Your task to perform on an android device: refresh tabs in the chrome app Image 0: 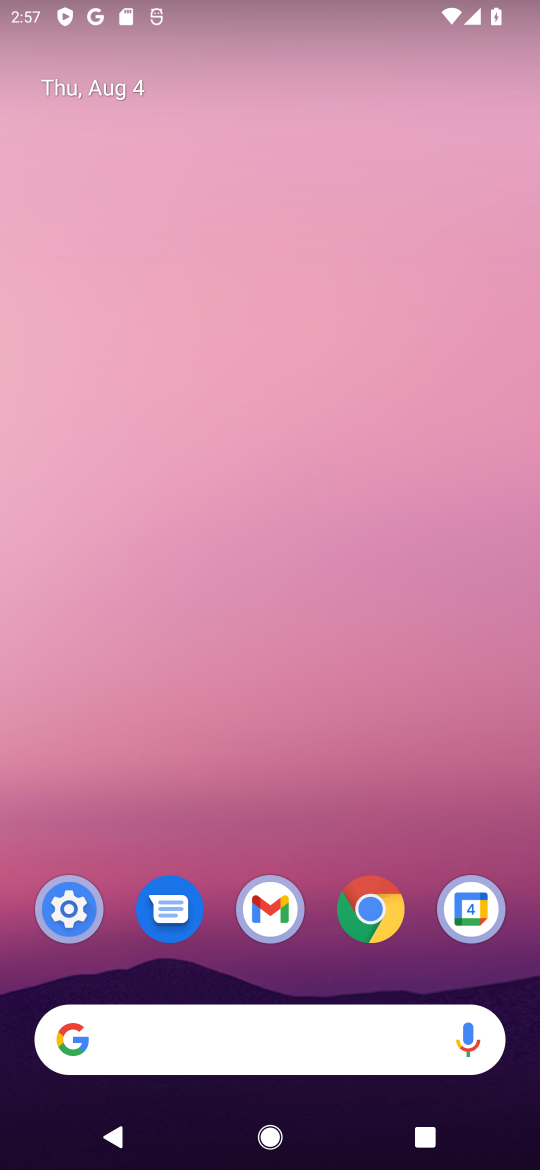
Step 0: click (361, 906)
Your task to perform on an android device: refresh tabs in the chrome app Image 1: 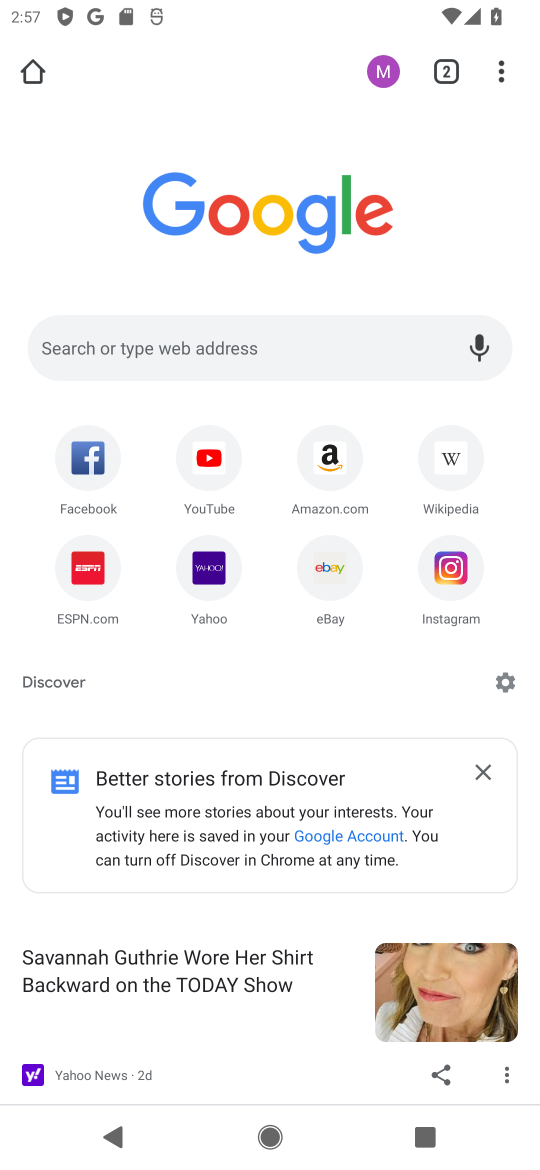
Step 1: click (499, 68)
Your task to perform on an android device: refresh tabs in the chrome app Image 2: 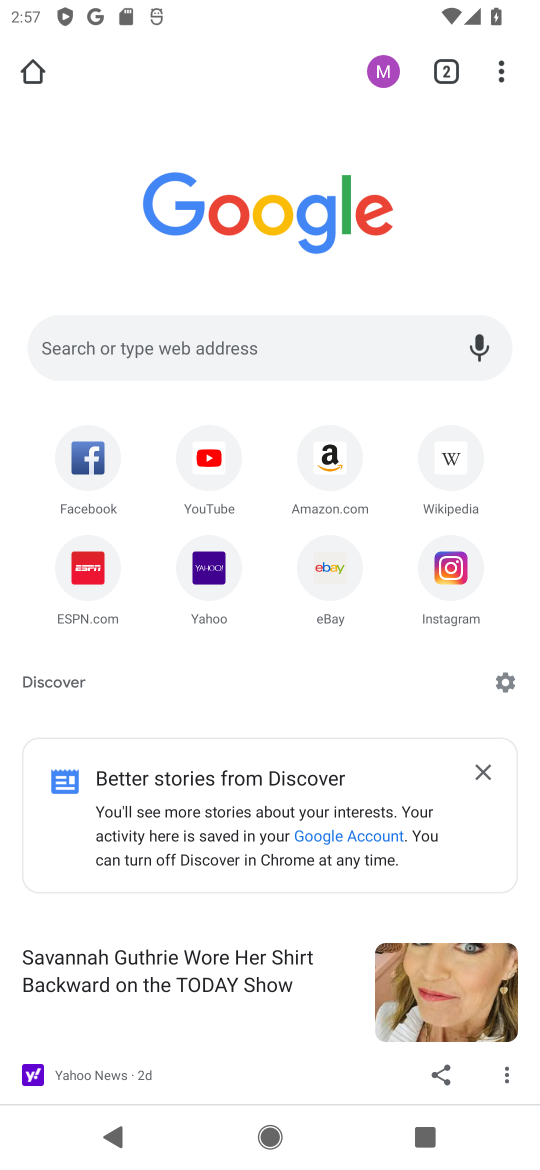
Step 2: click (500, 81)
Your task to perform on an android device: refresh tabs in the chrome app Image 3: 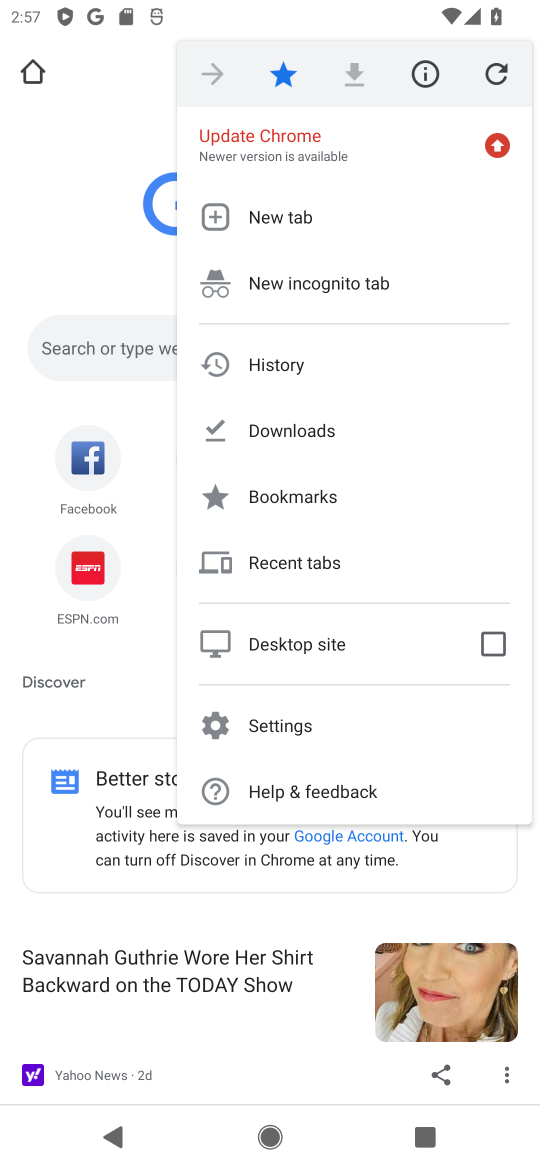
Step 3: click (485, 63)
Your task to perform on an android device: refresh tabs in the chrome app Image 4: 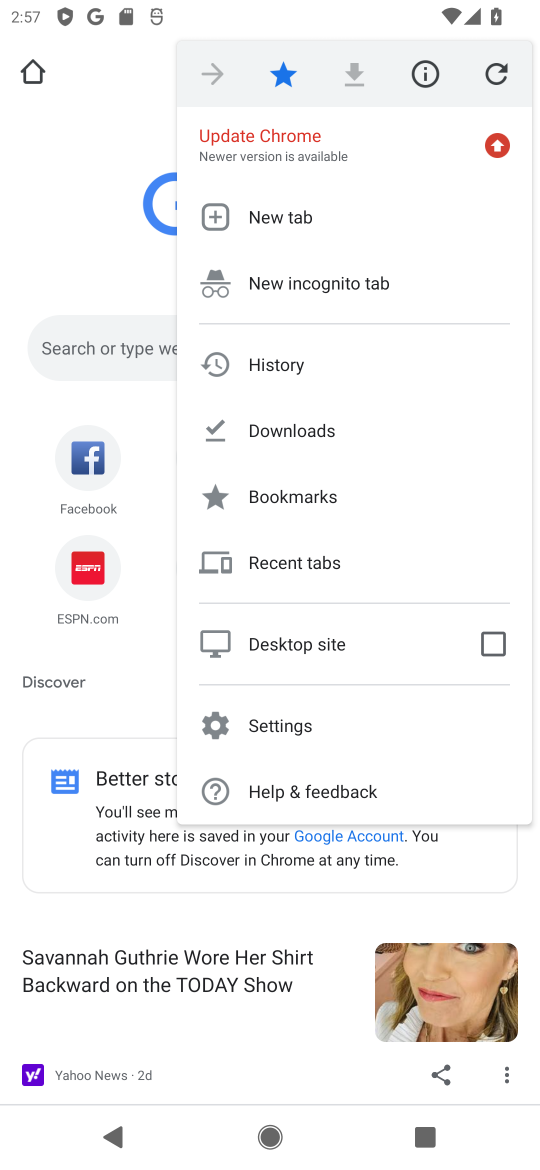
Step 4: click (492, 78)
Your task to perform on an android device: refresh tabs in the chrome app Image 5: 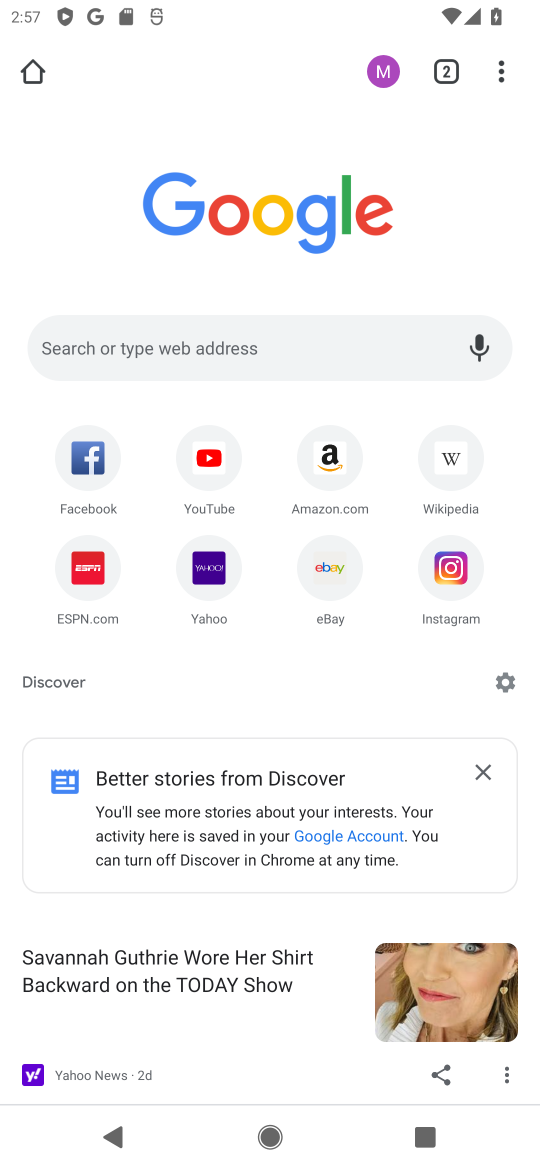
Step 5: task complete